Your task to perform on an android device: turn on sleep mode Image 0: 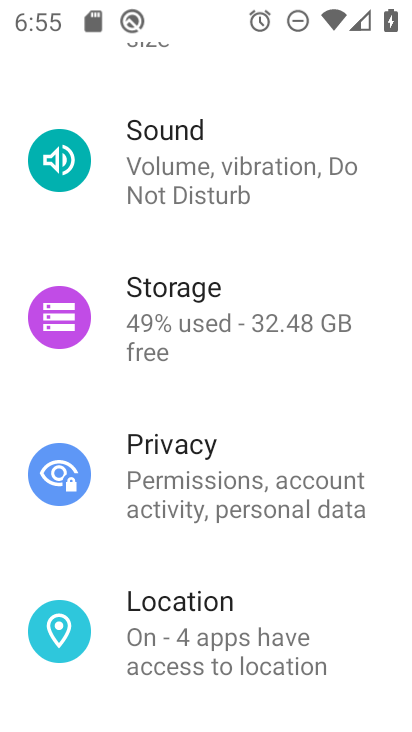
Step 0: press home button
Your task to perform on an android device: turn on sleep mode Image 1: 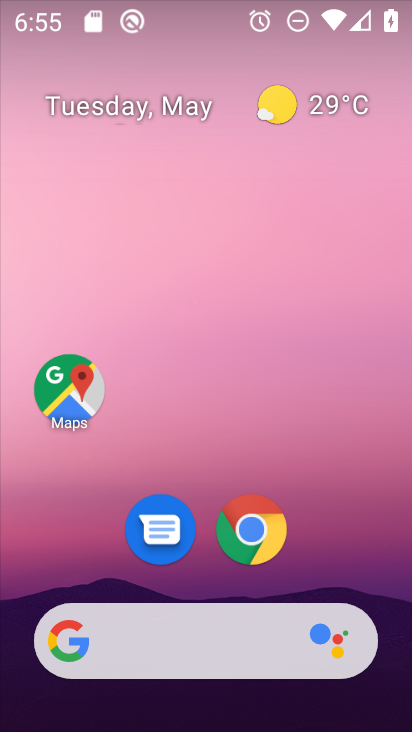
Step 1: drag from (381, 657) to (311, 381)
Your task to perform on an android device: turn on sleep mode Image 2: 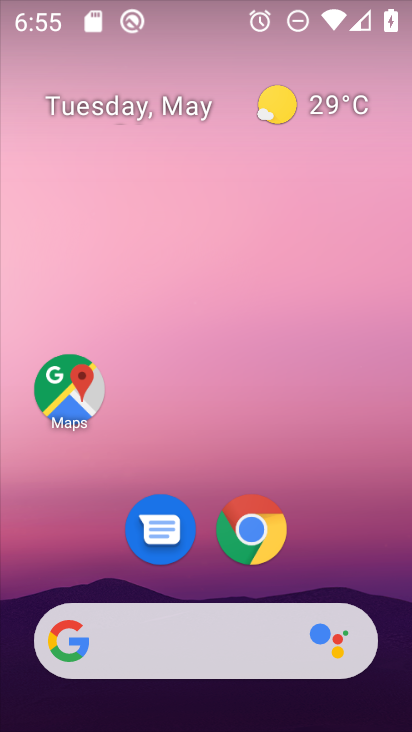
Step 2: drag from (401, 633) to (253, 175)
Your task to perform on an android device: turn on sleep mode Image 3: 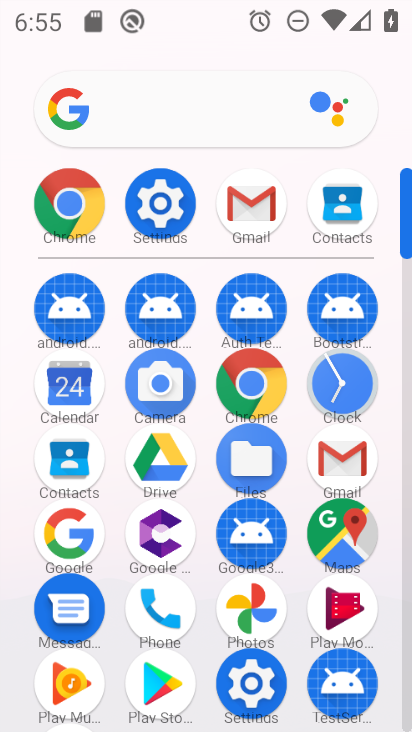
Step 3: click (162, 199)
Your task to perform on an android device: turn on sleep mode Image 4: 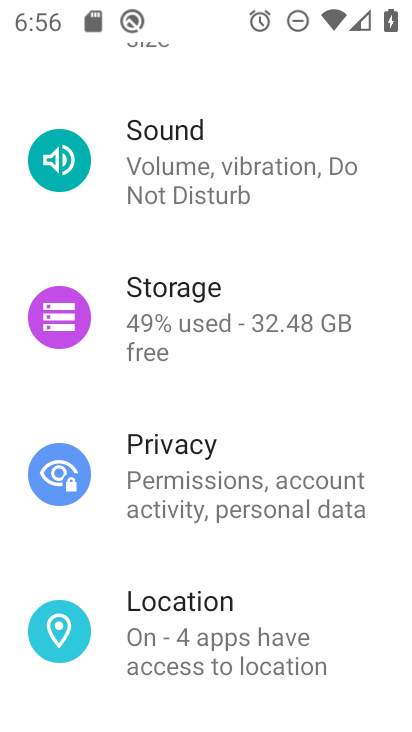
Step 4: task complete